Your task to perform on an android device: Show me the alarms in the clock app Image 0: 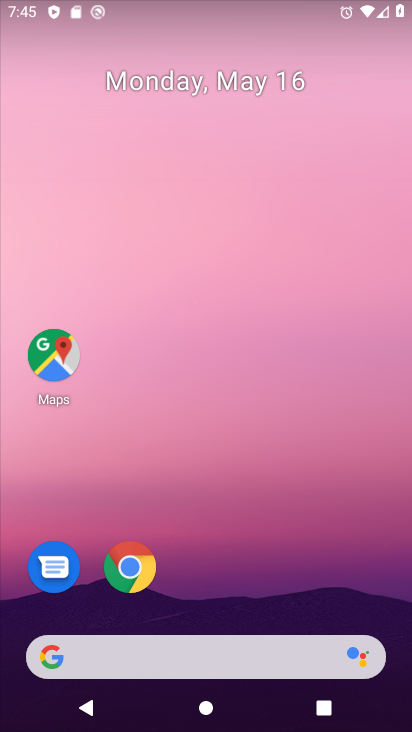
Step 0: drag from (184, 633) to (211, 233)
Your task to perform on an android device: Show me the alarms in the clock app Image 1: 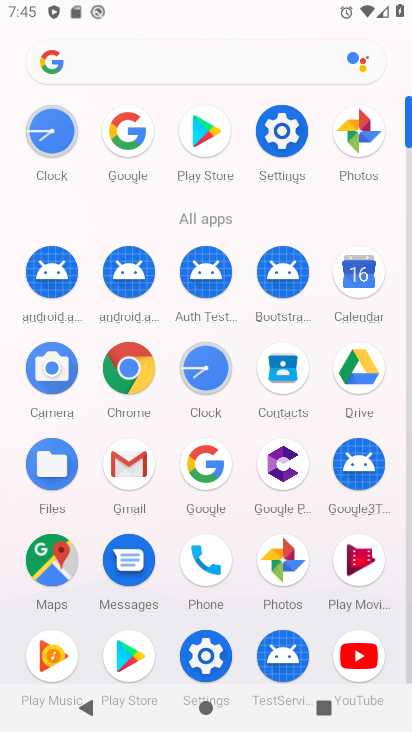
Step 1: click (40, 137)
Your task to perform on an android device: Show me the alarms in the clock app Image 2: 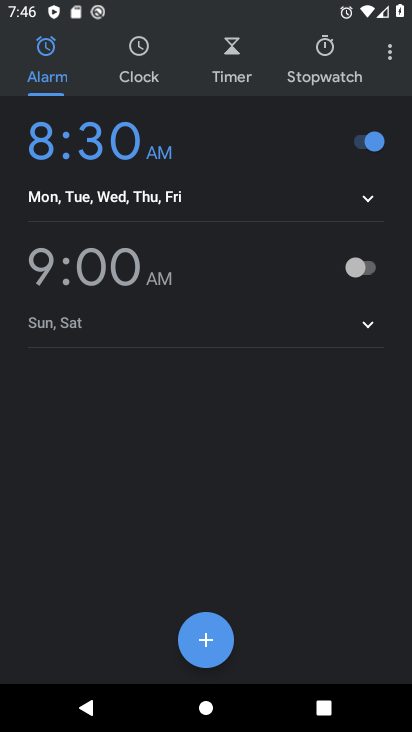
Step 2: task complete